Your task to perform on an android device: Go to location settings Image 0: 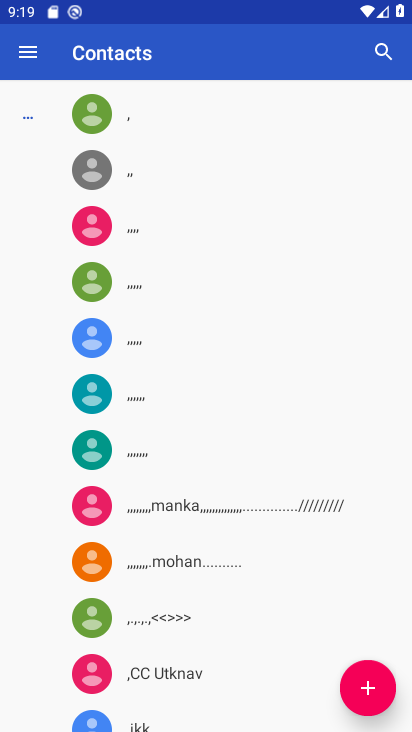
Step 0: press home button
Your task to perform on an android device: Go to location settings Image 1: 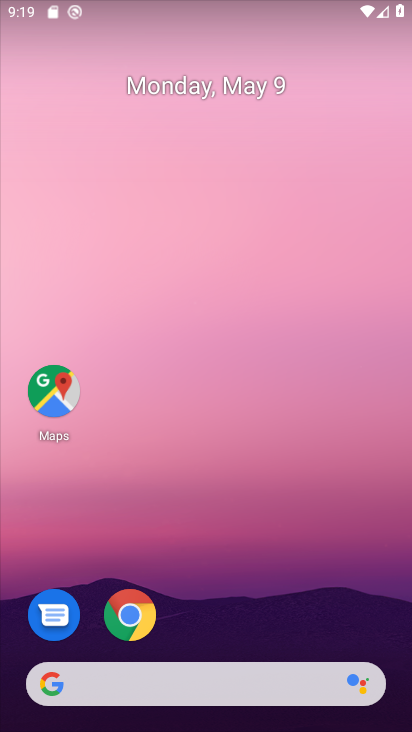
Step 1: drag from (339, 717) to (271, 374)
Your task to perform on an android device: Go to location settings Image 2: 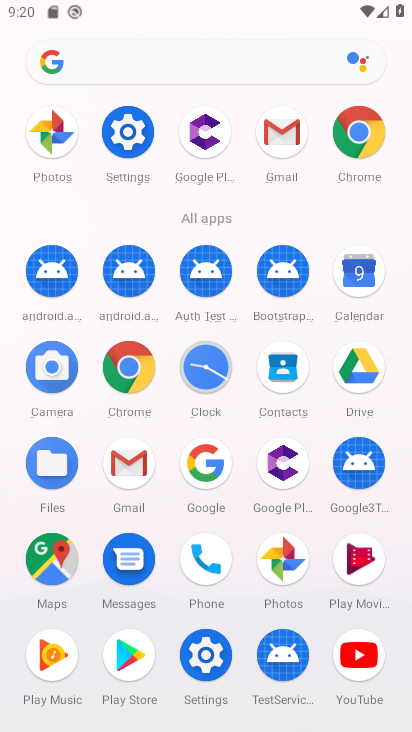
Step 2: drag from (301, 714) to (267, 585)
Your task to perform on an android device: Go to location settings Image 3: 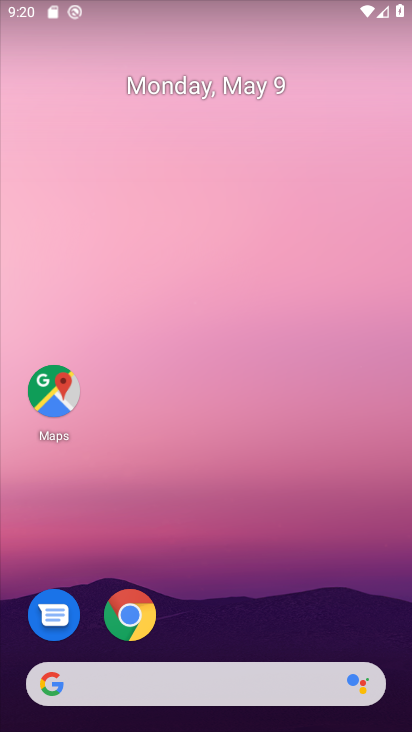
Step 3: drag from (295, 715) to (149, 357)
Your task to perform on an android device: Go to location settings Image 4: 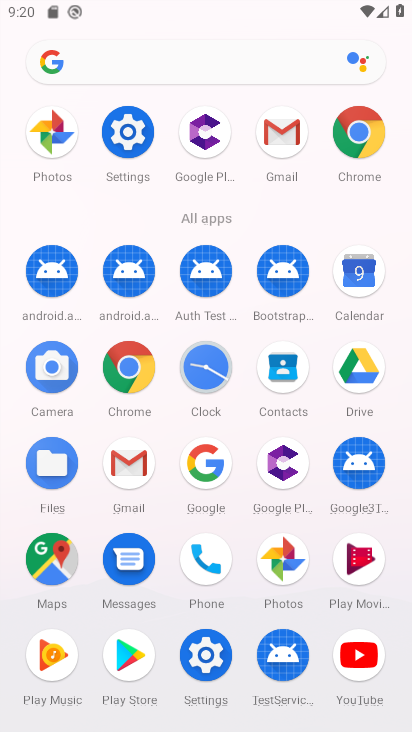
Step 4: drag from (261, 717) to (243, 663)
Your task to perform on an android device: Go to location settings Image 5: 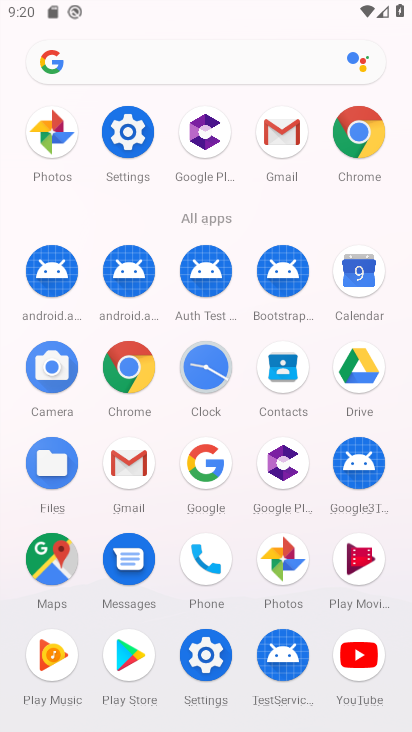
Step 5: click (204, 664)
Your task to perform on an android device: Go to location settings Image 6: 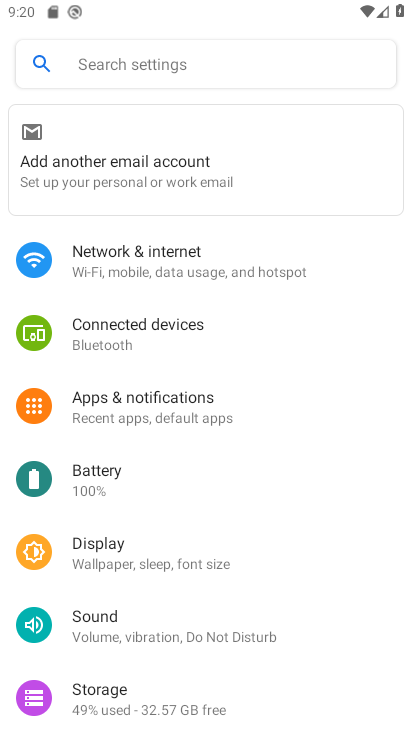
Step 6: drag from (193, 569) to (188, 398)
Your task to perform on an android device: Go to location settings Image 7: 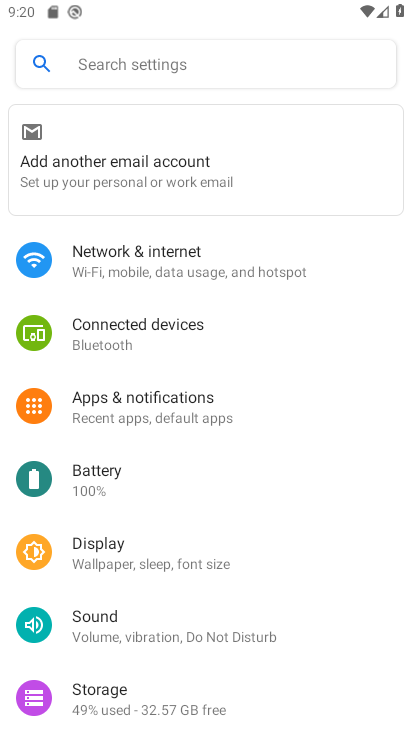
Step 7: drag from (218, 612) to (186, 426)
Your task to perform on an android device: Go to location settings Image 8: 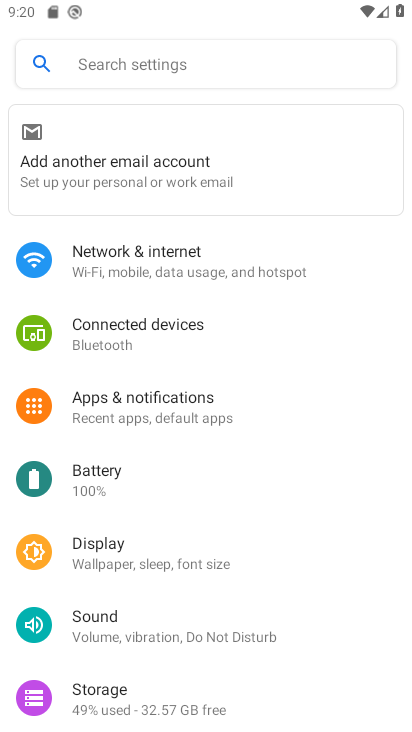
Step 8: click (124, 74)
Your task to perform on an android device: Go to location settings Image 9: 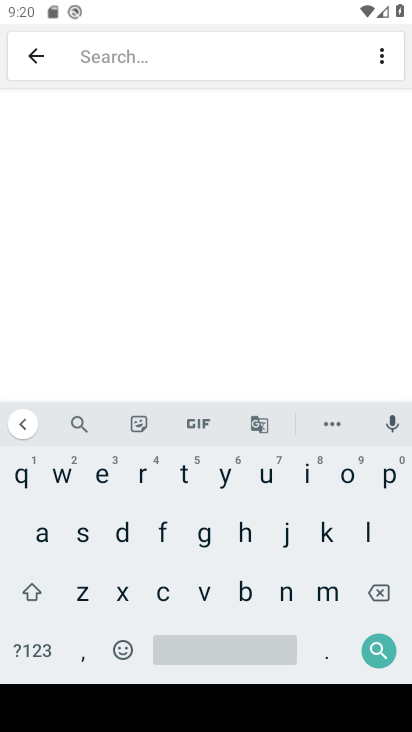
Step 9: click (375, 534)
Your task to perform on an android device: Go to location settings Image 10: 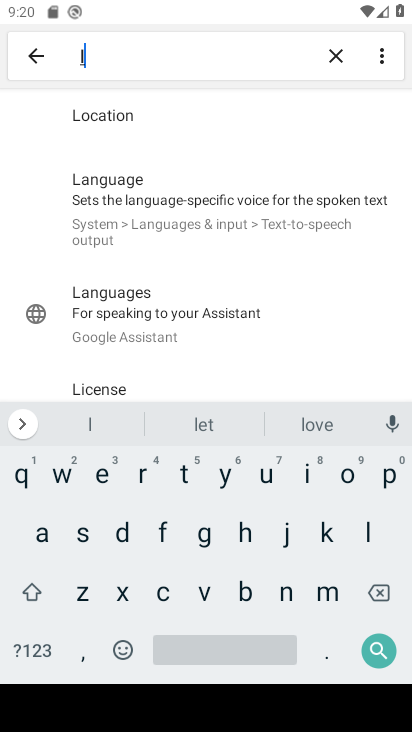
Step 10: click (351, 478)
Your task to perform on an android device: Go to location settings Image 11: 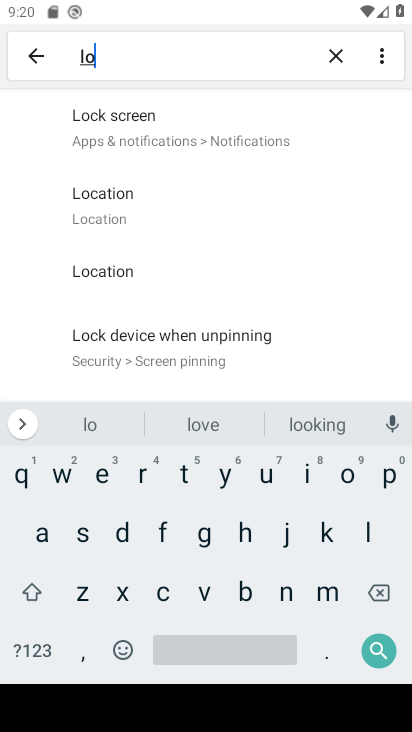
Step 11: click (141, 213)
Your task to perform on an android device: Go to location settings Image 12: 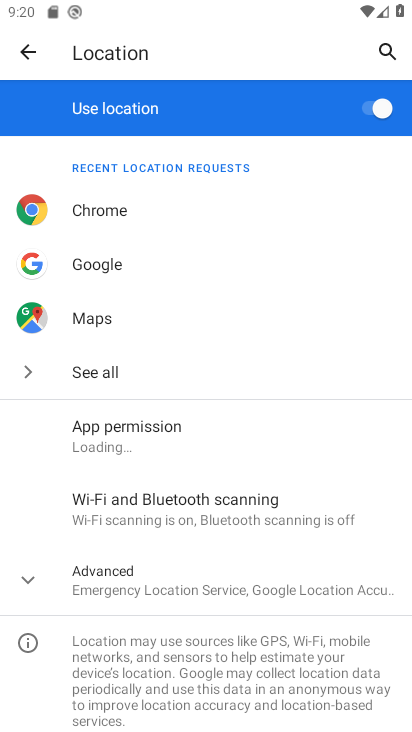
Step 12: task complete